Your task to perform on an android device: Check the news Image 0: 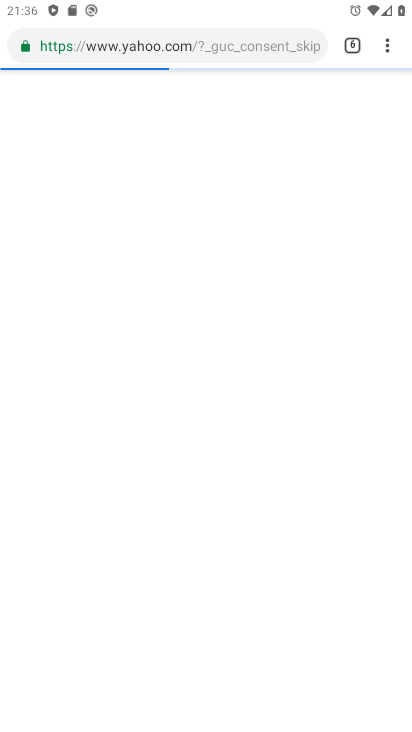
Step 0: press home button
Your task to perform on an android device: Check the news Image 1: 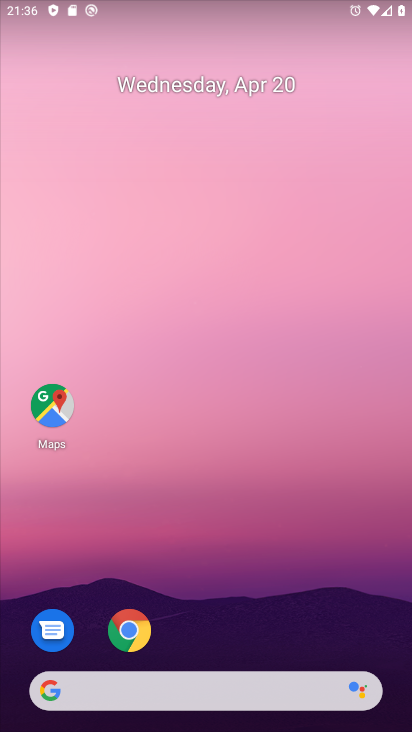
Step 1: click (168, 690)
Your task to perform on an android device: Check the news Image 2: 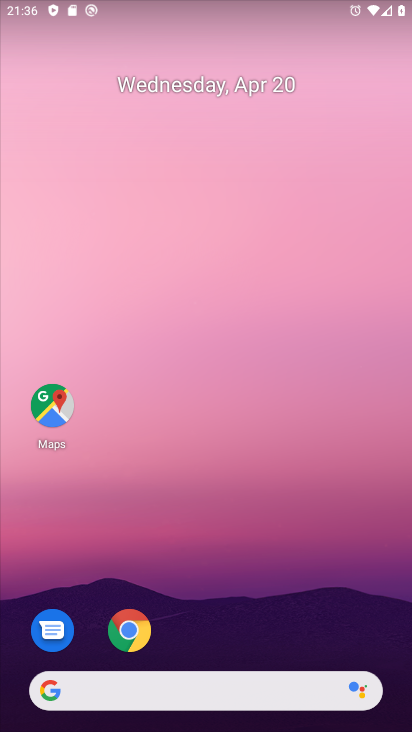
Step 2: click (165, 692)
Your task to perform on an android device: Check the news Image 3: 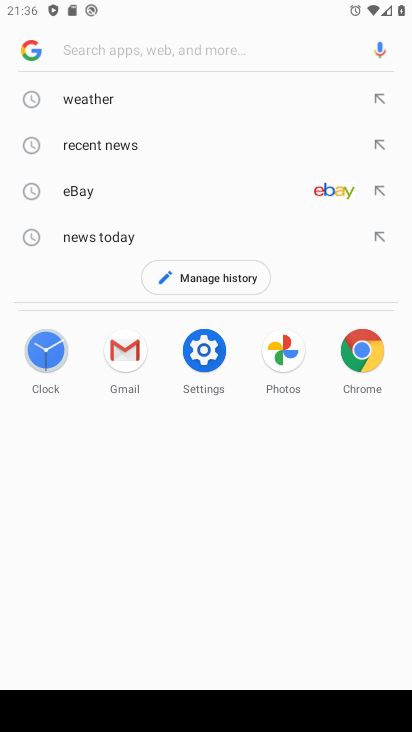
Step 3: click (98, 143)
Your task to perform on an android device: Check the news Image 4: 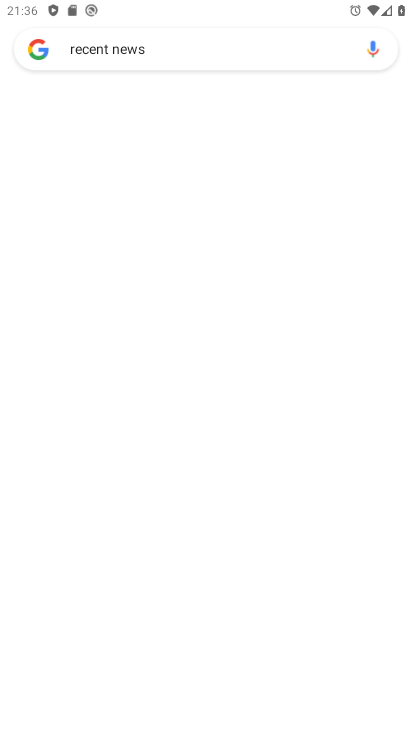
Step 4: click (97, 144)
Your task to perform on an android device: Check the news Image 5: 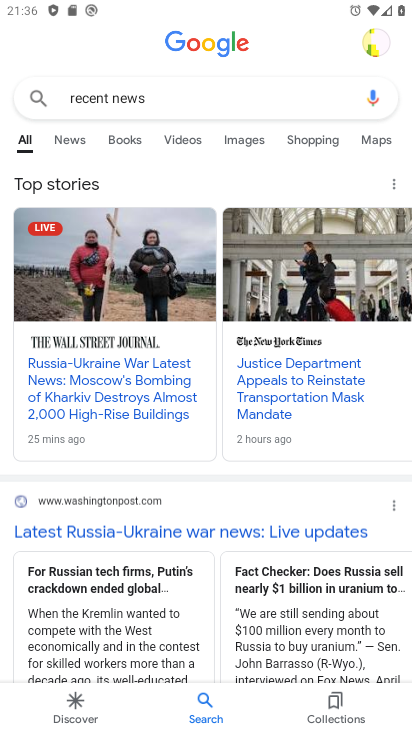
Step 5: click (66, 137)
Your task to perform on an android device: Check the news Image 6: 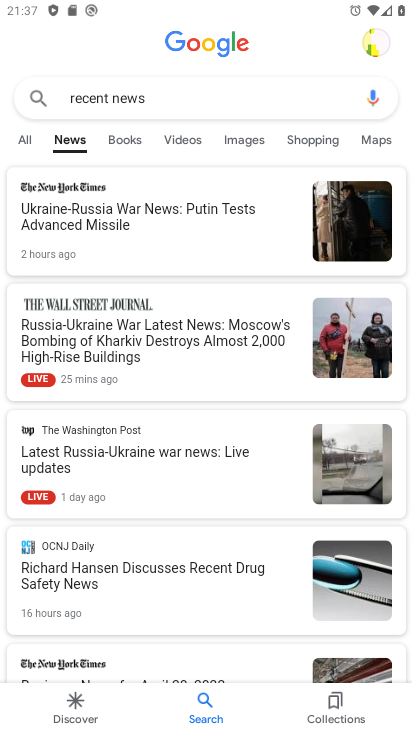
Step 6: task complete